Your task to perform on an android device: Open the Play Movies app and select the watchlist tab. Image 0: 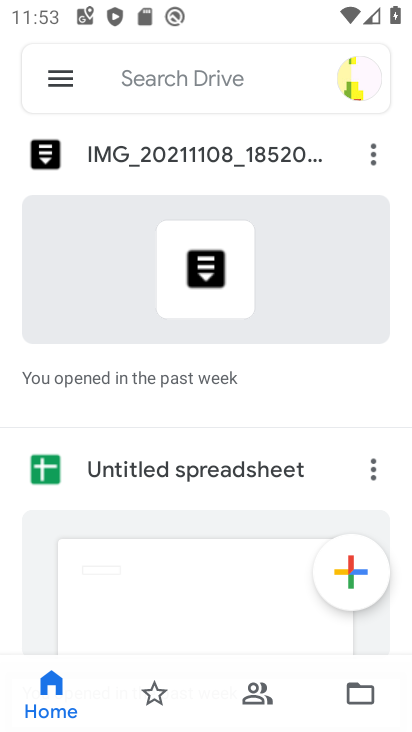
Step 0: press home button
Your task to perform on an android device: Open the Play Movies app and select the watchlist tab. Image 1: 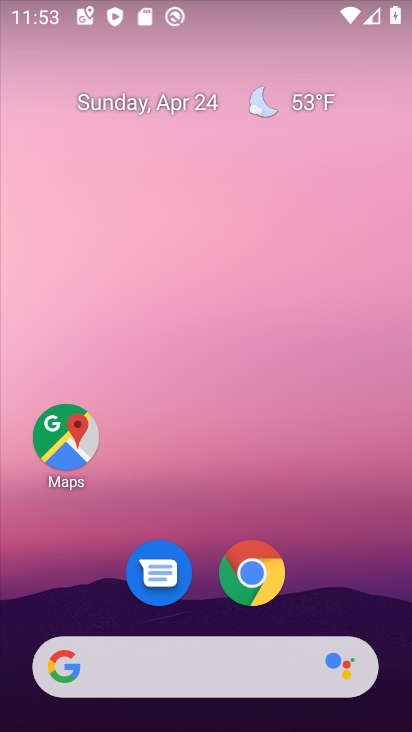
Step 1: drag from (353, 270) to (308, 82)
Your task to perform on an android device: Open the Play Movies app and select the watchlist tab. Image 2: 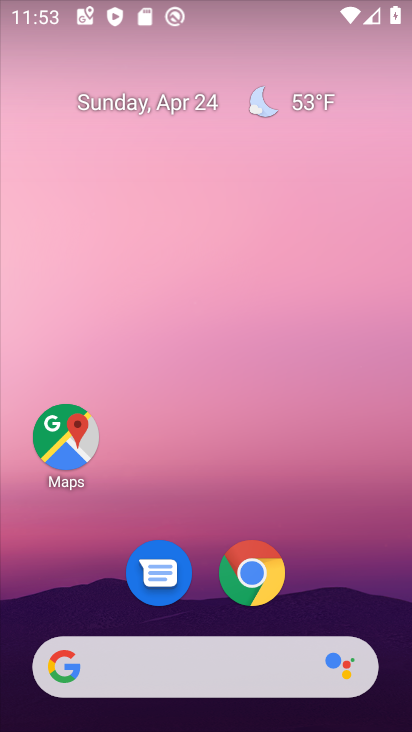
Step 2: drag from (358, 519) to (351, 37)
Your task to perform on an android device: Open the Play Movies app and select the watchlist tab. Image 3: 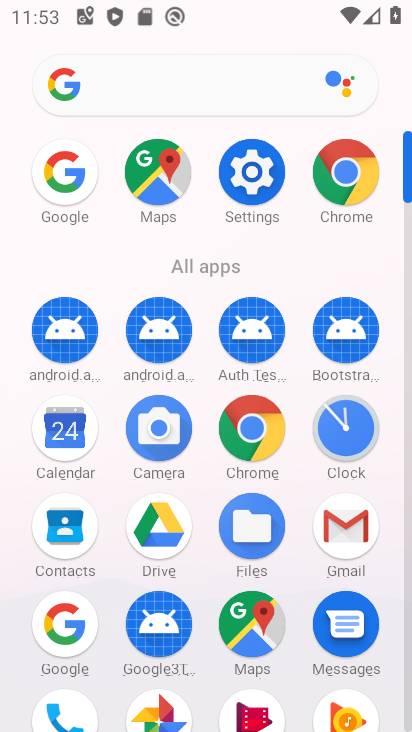
Step 3: drag from (410, 473) to (404, 356)
Your task to perform on an android device: Open the Play Movies app and select the watchlist tab. Image 4: 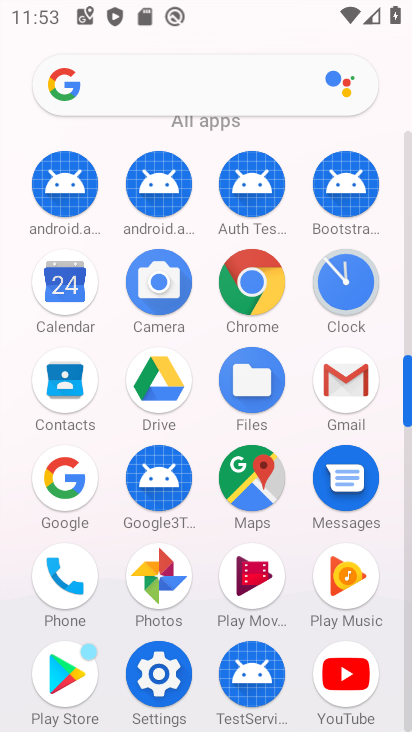
Step 4: click (259, 595)
Your task to perform on an android device: Open the Play Movies app and select the watchlist tab. Image 5: 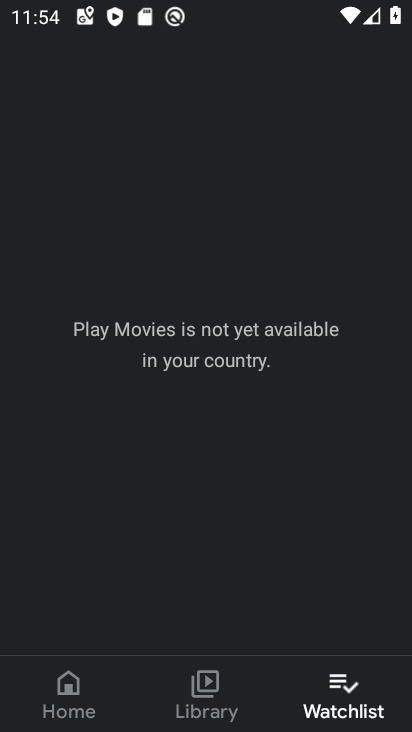
Step 5: task complete